Your task to perform on an android device: Show me popular games on the Play Store Image 0: 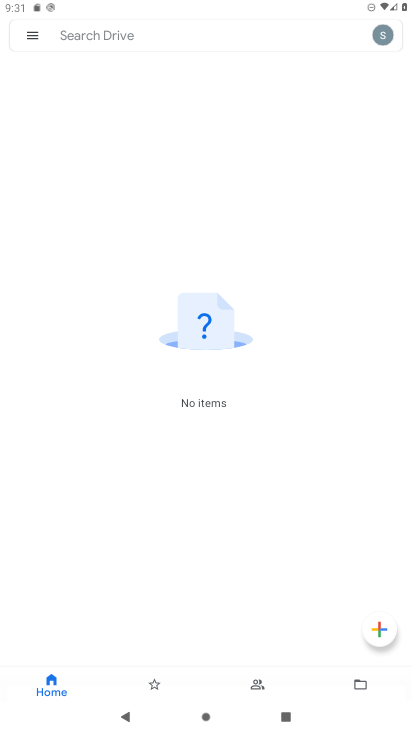
Step 0: press home button
Your task to perform on an android device: Show me popular games on the Play Store Image 1: 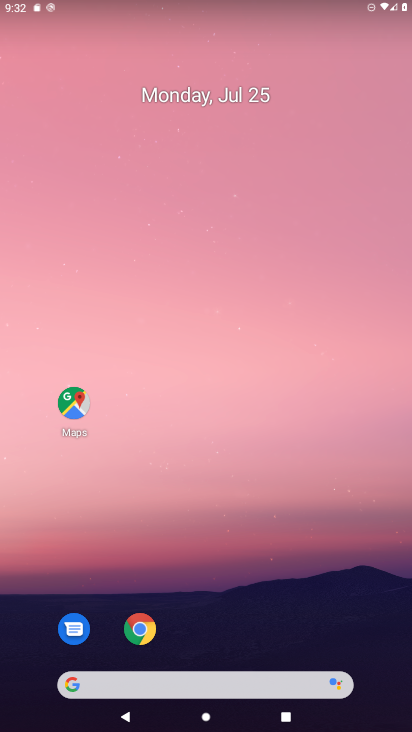
Step 1: drag from (259, 649) to (249, 7)
Your task to perform on an android device: Show me popular games on the Play Store Image 2: 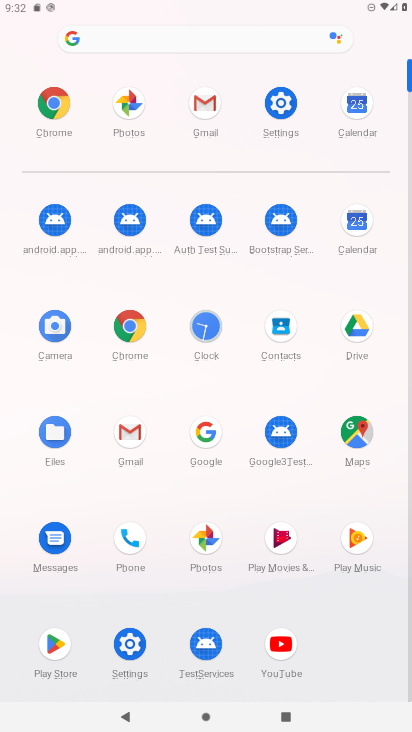
Step 2: click (59, 644)
Your task to perform on an android device: Show me popular games on the Play Store Image 3: 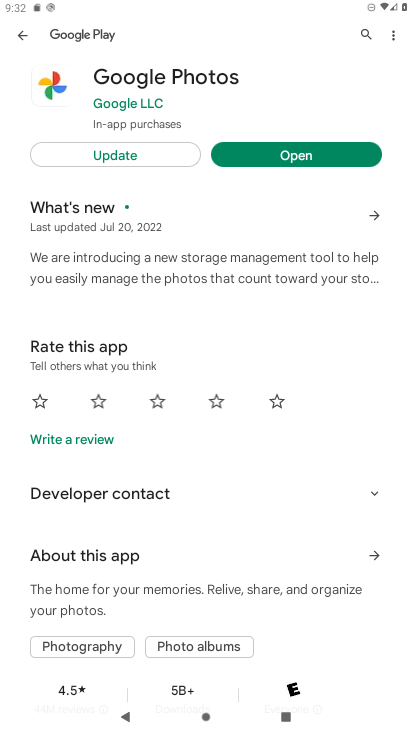
Step 3: click (28, 31)
Your task to perform on an android device: Show me popular games on the Play Store Image 4: 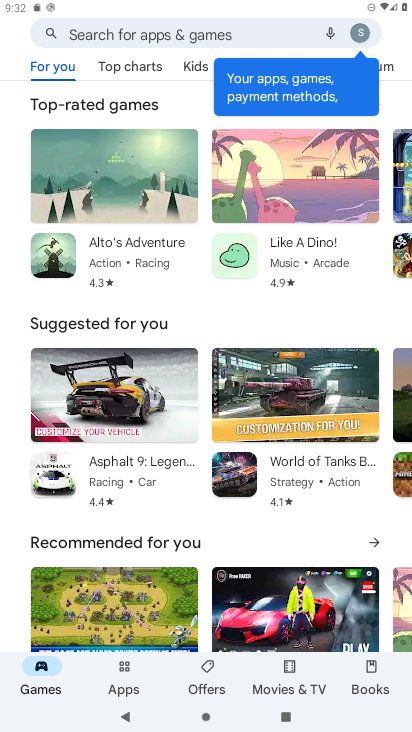
Step 4: task complete